Your task to perform on an android device: check data usage Image 0: 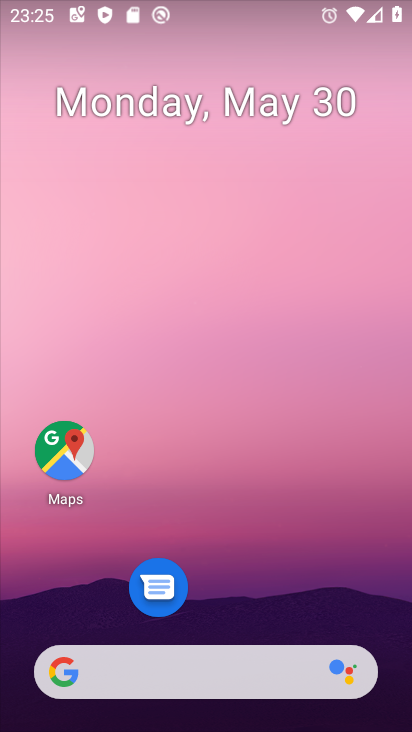
Step 0: drag from (216, 618) to (161, 7)
Your task to perform on an android device: check data usage Image 1: 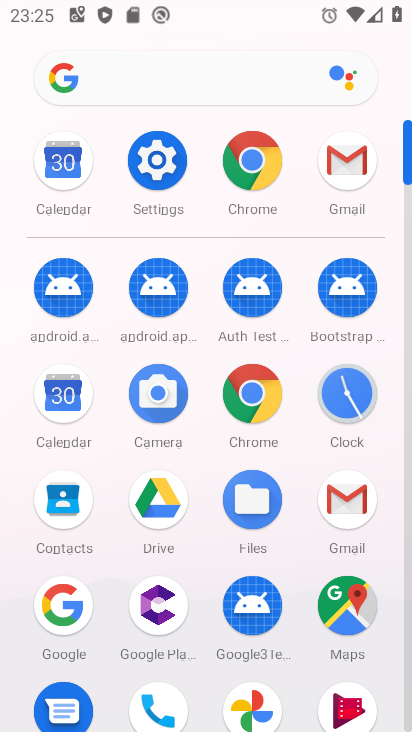
Step 1: click (158, 174)
Your task to perform on an android device: check data usage Image 2: 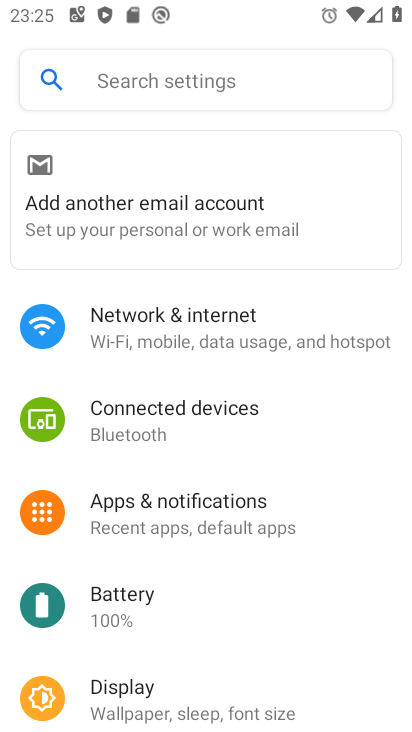
Step 2: click (193, 320)
Your task to perform on an android device: check data usage Image 3: 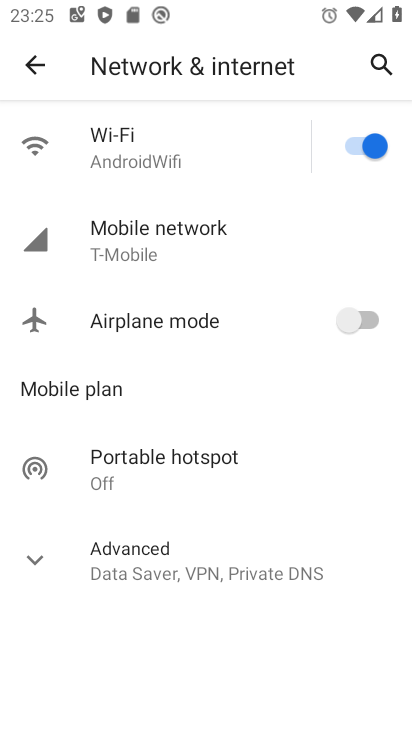
Step 3: click (171, 265)
Your task to perform on an android device: check data usage Image 4: 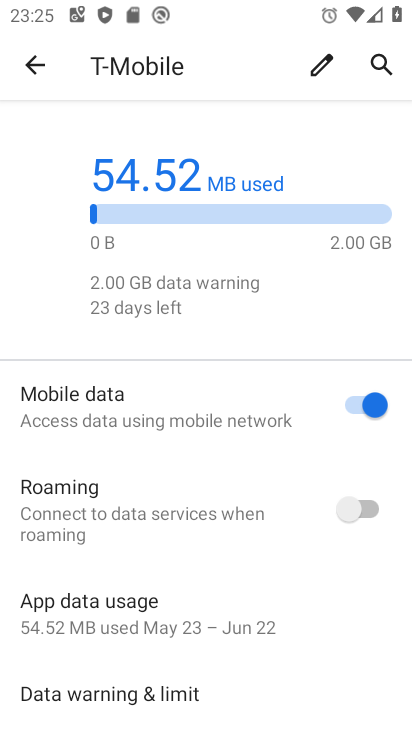
Step 4: task complete